Your task to perform on an android device: Go to internet settings Image 0: 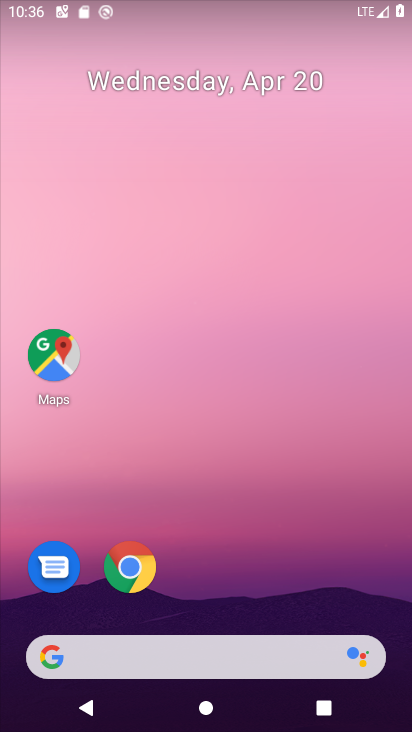
Step 0: drag from (321, 591) to (325, 151)
Your task to perform on an android device: Go to internet settings Image 1: 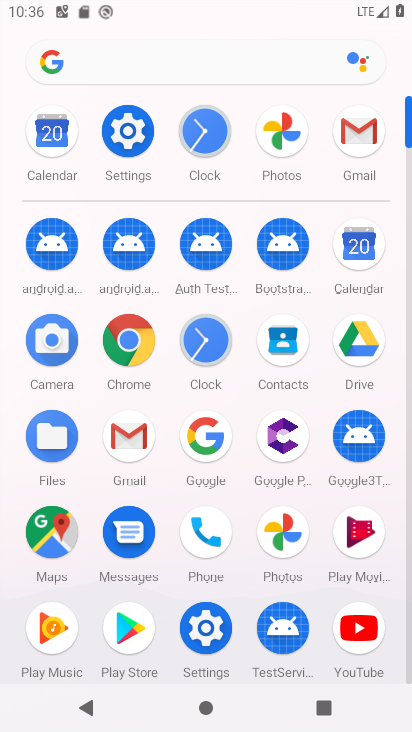
Step 1: click (182, 635)
Your task to perform on an android device: Go to internet settings Image 2: 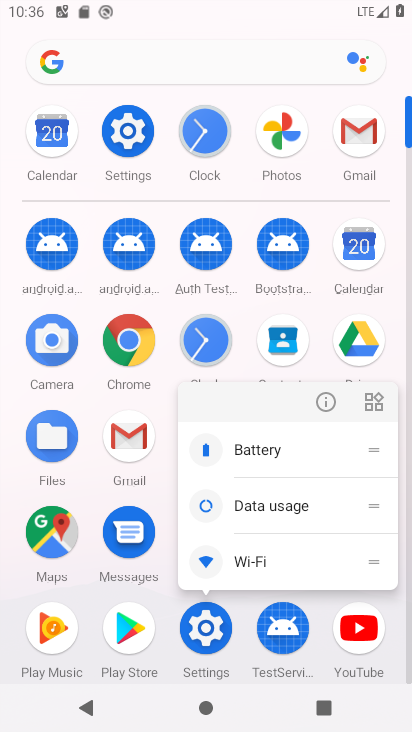
Step 2: click (192, 633)
Your task to perform on an android device: Go to internet settings Image 3: 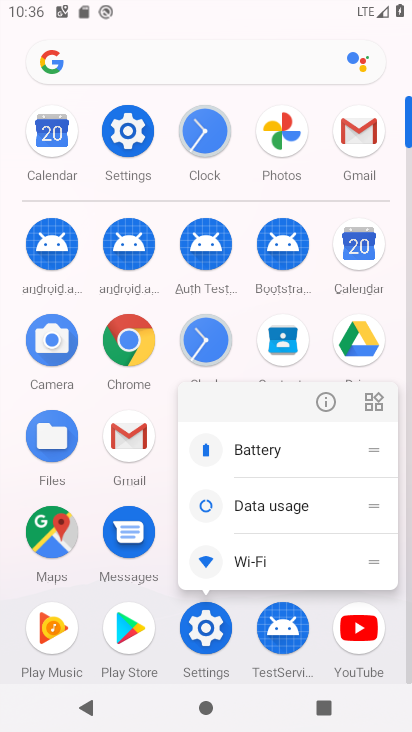
Step 3: click (208, 633)
Your task to perform on an android device: Go to internet settings Image 4: 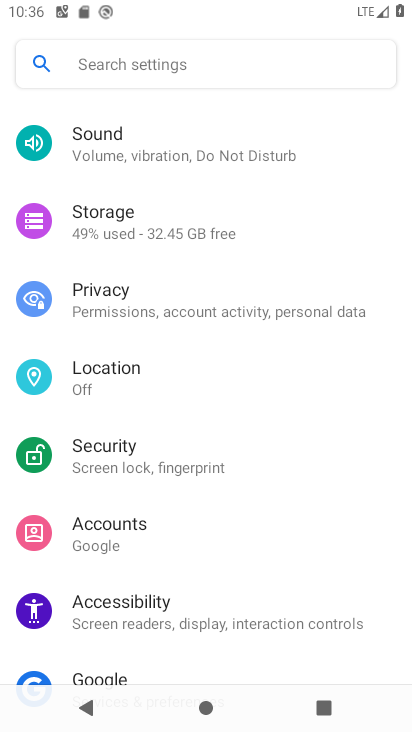
Step 4: drag from (357, 418) to (367, 539)
Your task to perform on an android device: Go to internet settings Image 5: 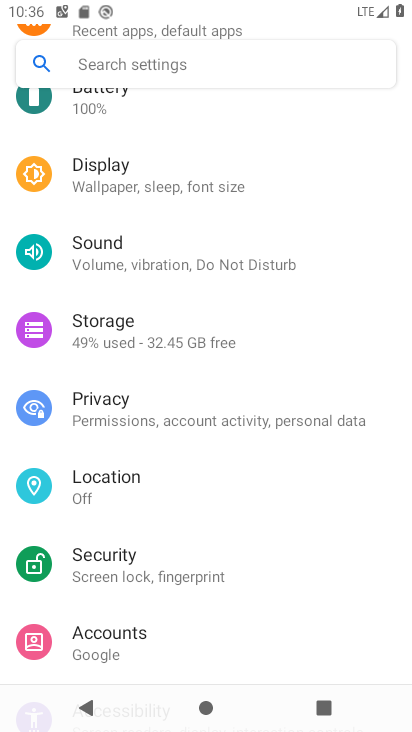
Step 5: drag from (369, 437) to (371, 562)
Your task to perform on an android device: Go to internet settings Image 6: 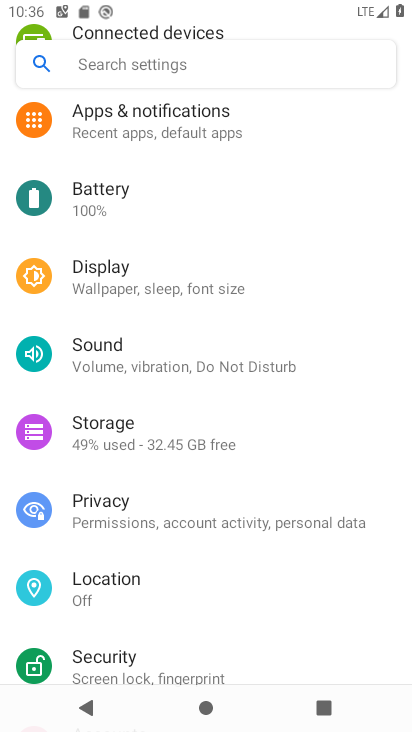
Step 6: drag from (379, 478) to (370, 589)
Your task to perform on an android device: Go to internet settings Image 7: 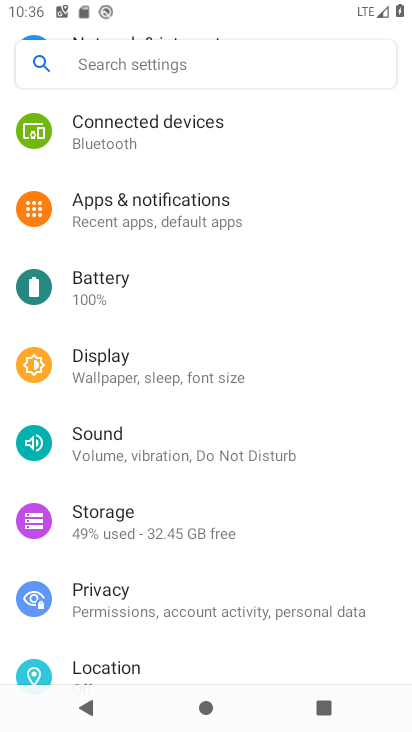
Step 7: drag from (364, 405) to (366, 546)
Your task to perform on an android device: Go to internet settings Image 8: 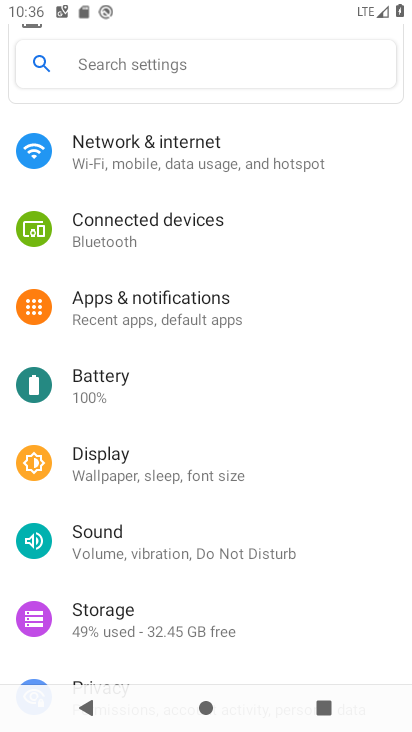
Step 8: drag from (368, 366) to (372, 542)
Your task to perform on an android device: Go to internet settings Image 9: 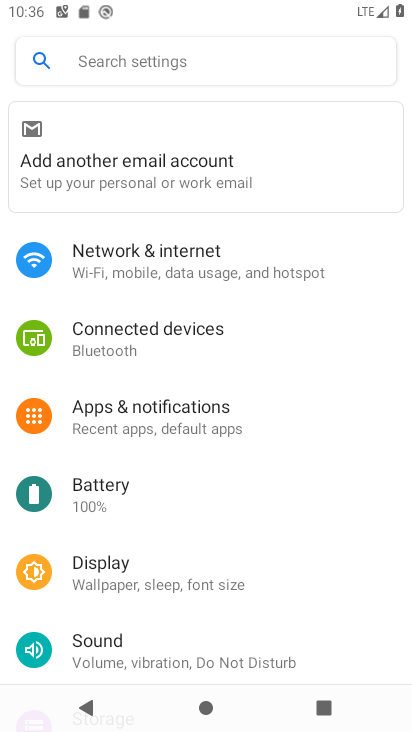
Step 9: drag from (357, 357) to (359, 508)
Your task to perform on an android device: Go to internet settings Image 10: 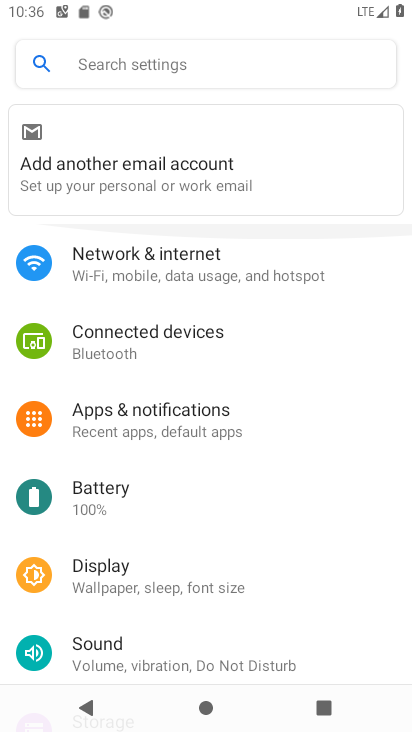
Step 10: click (295, 269)
Your task to perform on an android device: Go to internet settings Image 11: 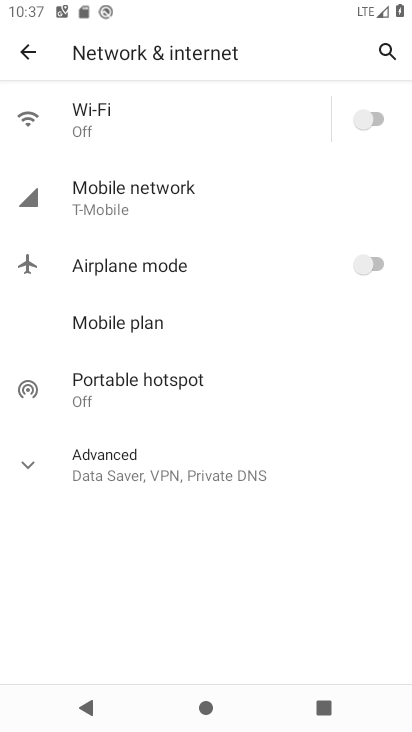
Step 11: task complete